Your task to perform on an android device: Open privacy settings Image 0: 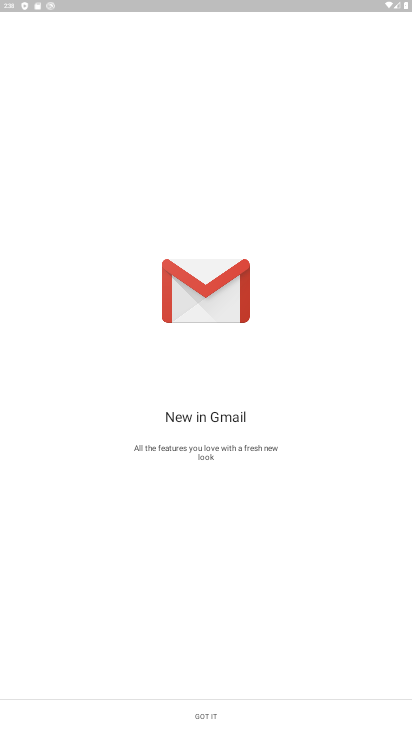
Step 0: press back button
Your task to perform on an android device: Open privacy settings Image 1: 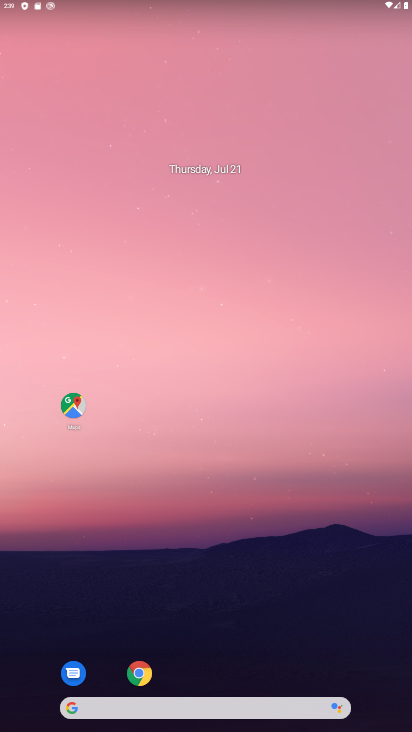
Step 1: click (206, 213)
Your task to perform on an android device: Open privacy settings Image 2: 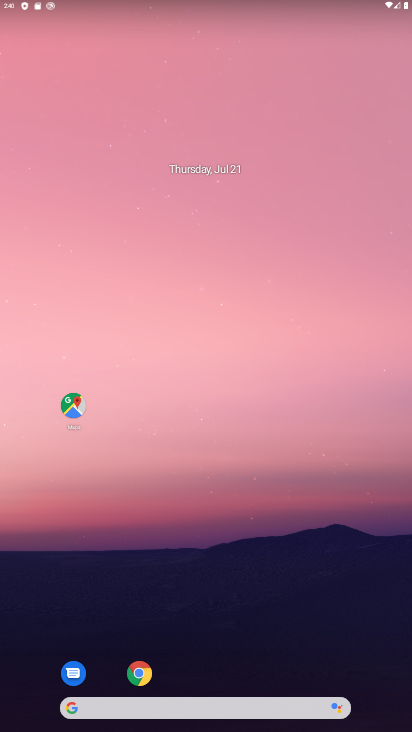
Step 2: drag from (195, 664) to (193, 6)
Your task to perform on an android device: Open privacy settings Image 3: 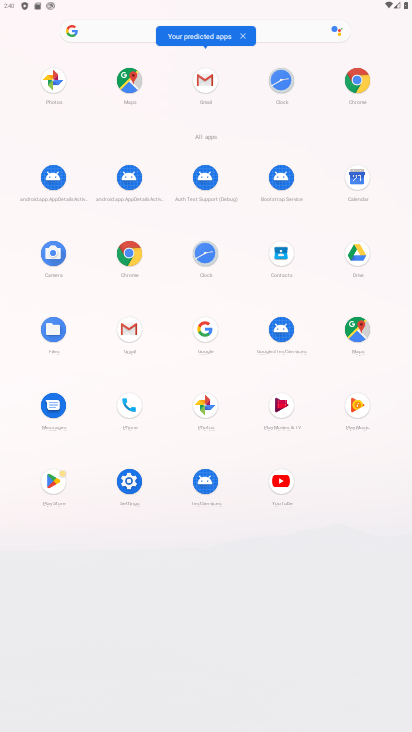
Step 3: click (129, 493)
Your task to perform on an android device: Open privacy settings Image 4: 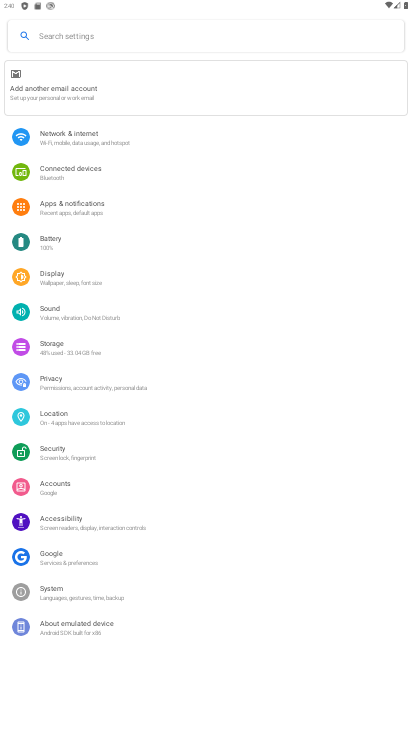
Step 4: click (50, 386)
Your task to perform on an android device: Open privacy settings Image 5: 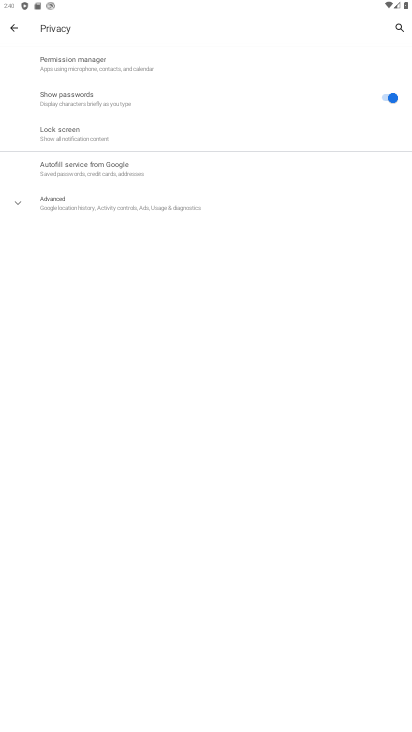
Step 5: task complete